Your task to perform on an android device: delete browsing data in the chrome app Image 0: 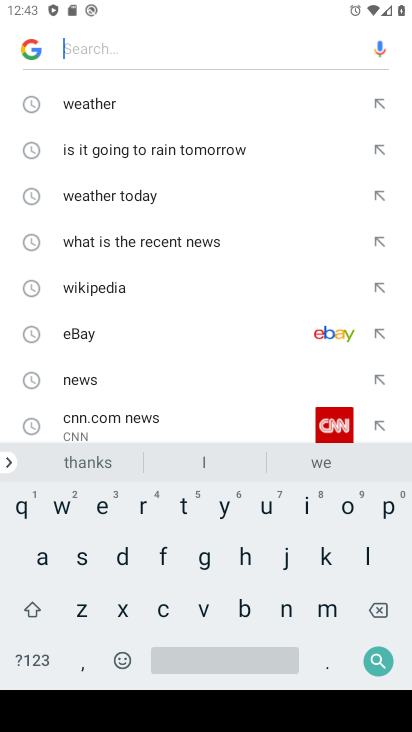
Step 0: press home button
Your task to perform on an android device: delete browsing data in the chrome app Image 1: 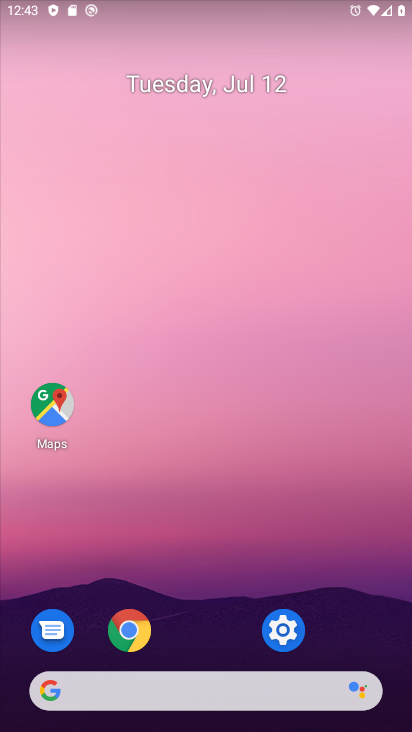
Step 1: click (140, 621)
Your task to perform on an android device: delete browsing data in the chrome app Image 2: 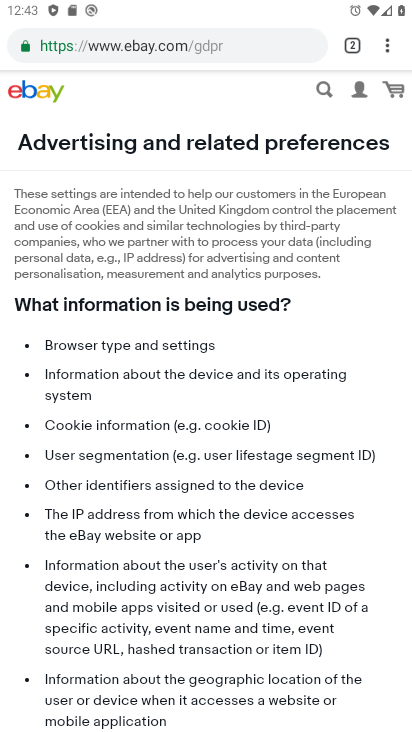
Step 2: click (385, 48)
Your task to perform on an android device: delete browsing data in the chrome app Image 3: 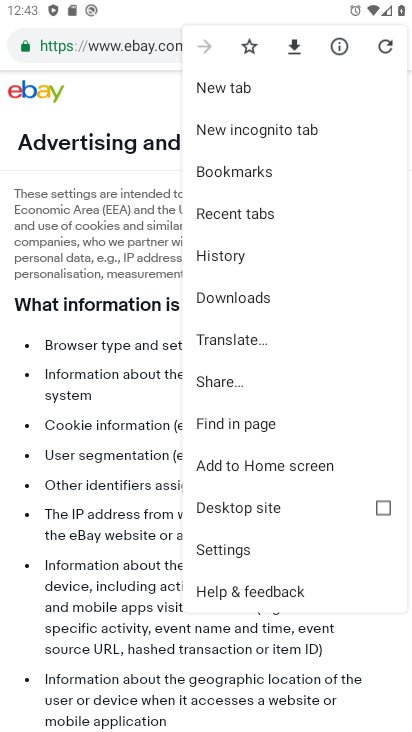
Step 3: click (246, 545)
Your task to perform on an android device: delete browsing data in the chrome app Image 4: 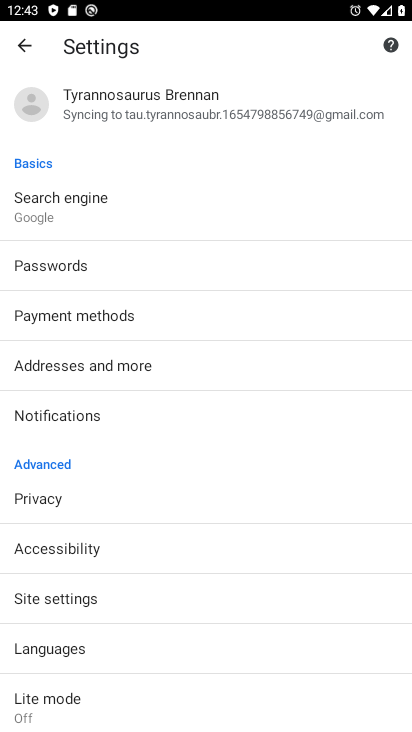
Step 4: click (61, 493)
Your task to perform on an android device: delete browsing data in the chrome app Image 5: 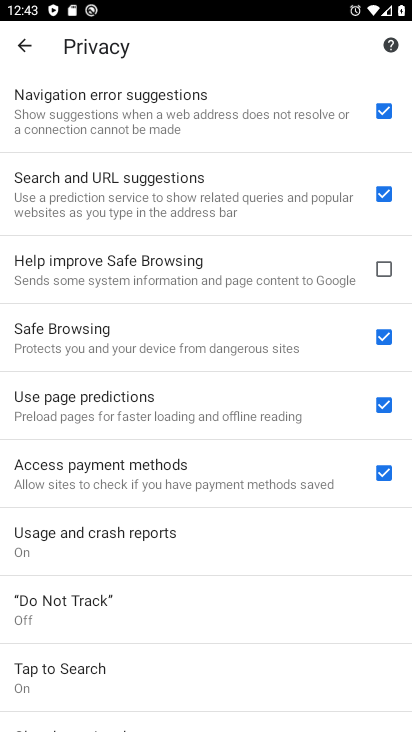
Step 5: drag from (109, 638) to (163, 446)
Your task to perform on an android device: delete browsing data in the chrome app Image 6: 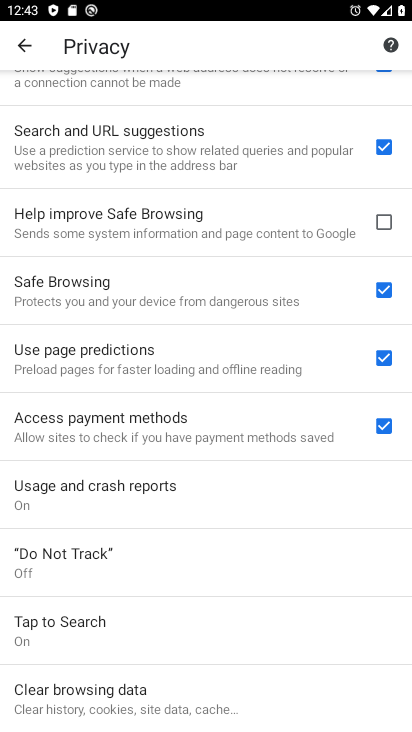
Step 6: click (119, 700)
Your task to perform on an android device: delete browsing data in the chrome app Image 7: 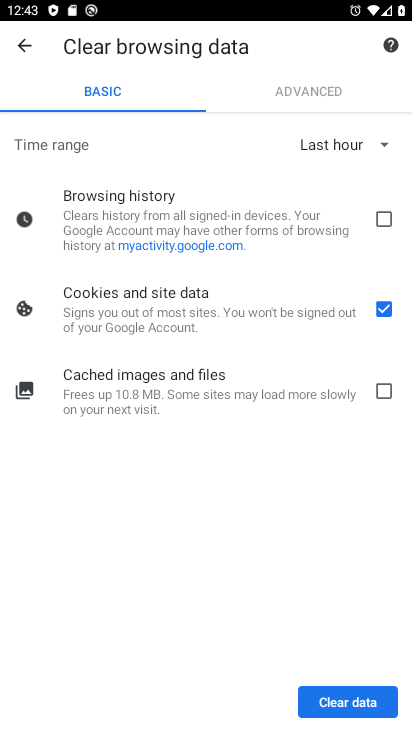
Step 7: click (359, 703)
Your task to perform on an android device: delete browsing data in the chrome app Image 8: 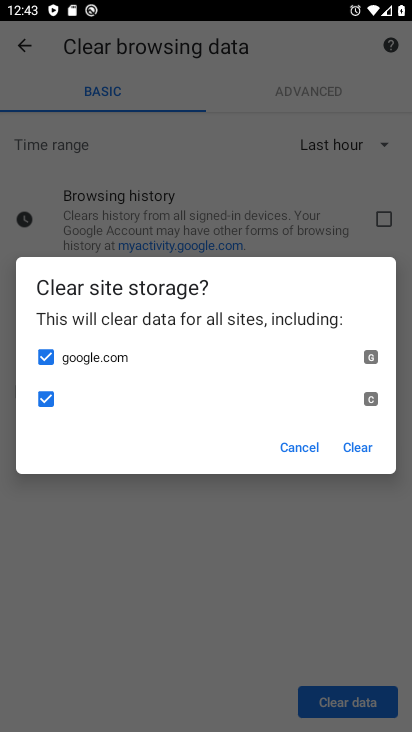
Step 8: click (349, 435)
Your task to perform on an android device: delete browsing data in the chrome app Image 9: 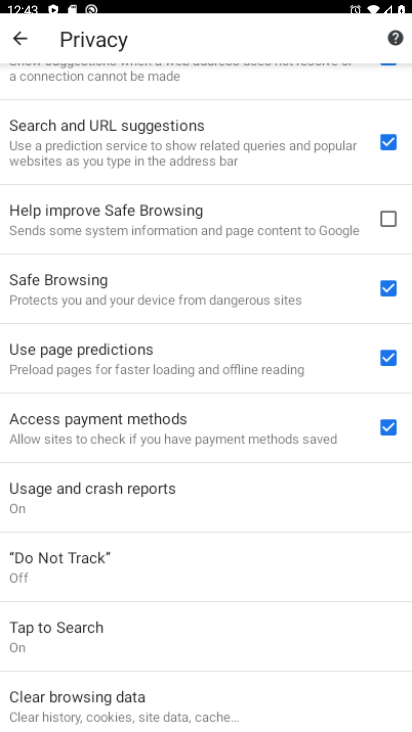
Step 9: task complete